Your task to perform on an android device: Show me popular videos on Youtube Image 0: 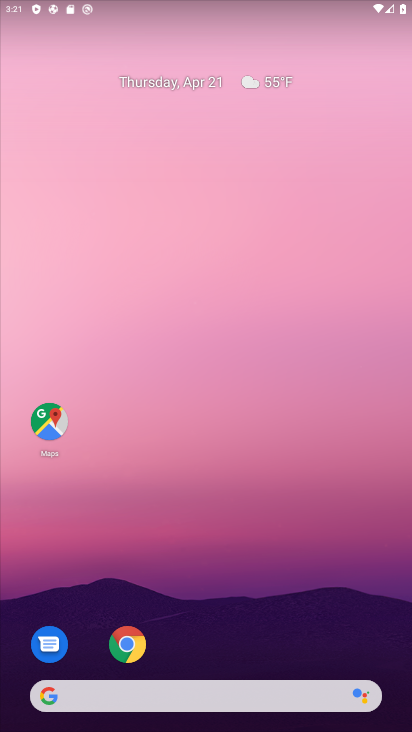
Step 0: drag from (203, 673) to (147, 60)
Your task to perform on an android device: Show me popular videos on Youtube Image 1: 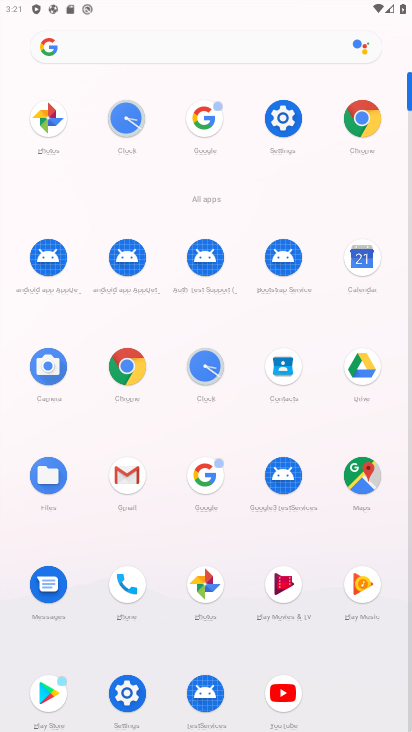
Step 1: click (273, 698)
Your task to perform on an android device: Show me popular videos on Youtube Image 2: 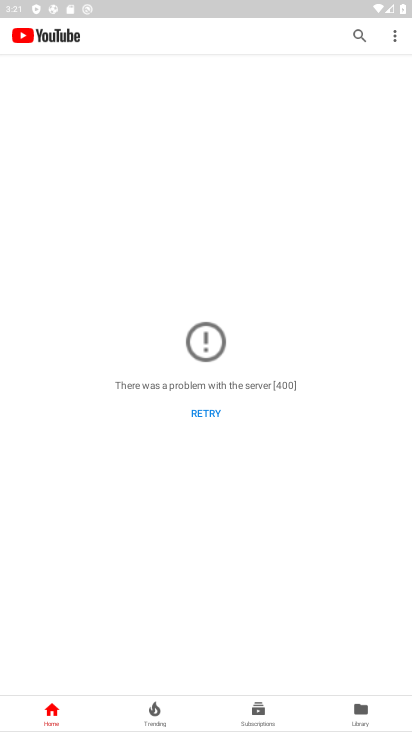
Step 2: click (179, 707)
Your task to perform on an android device: Show me popular videos on Youtube Image 3: 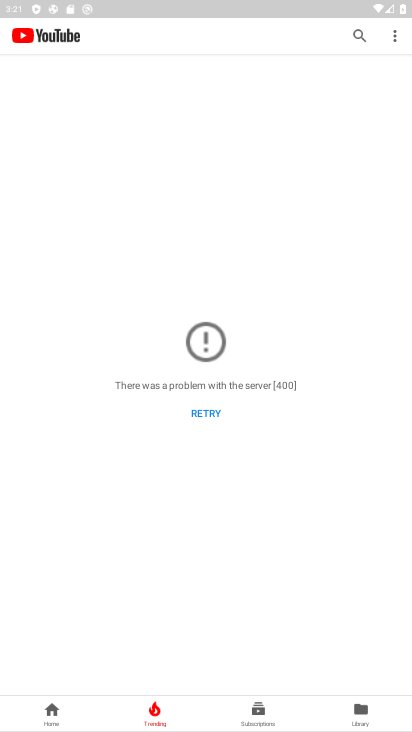
Step 3: task complete